Your task to perform on an android device: check out phone information Image 0: 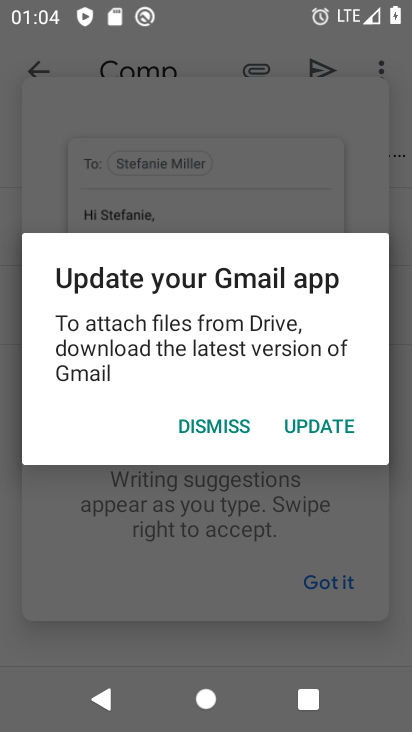
Step 0: press home button
Your task to perform on an android device: check out phone information Image 1: 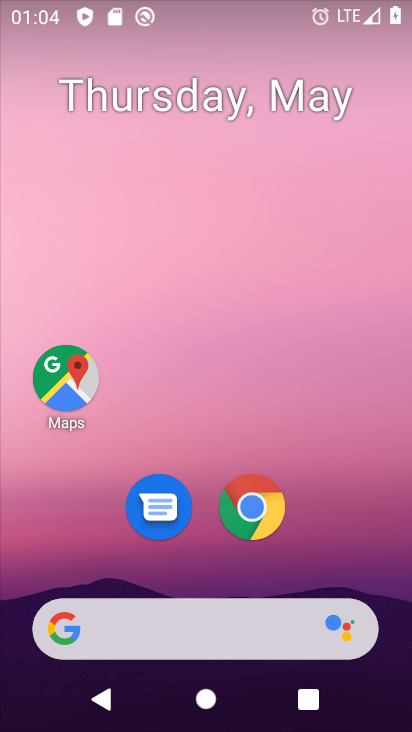
Step 1: drag from (205, 568) to (237, 199)
Your task to perform on an android device: check out phone information Image 2: 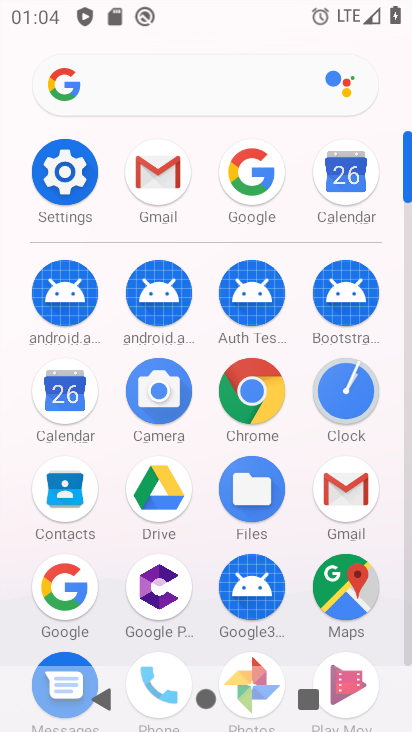
Step 2: click (44, 176)
Your task to perform on an android device: check out phone information Image 3: 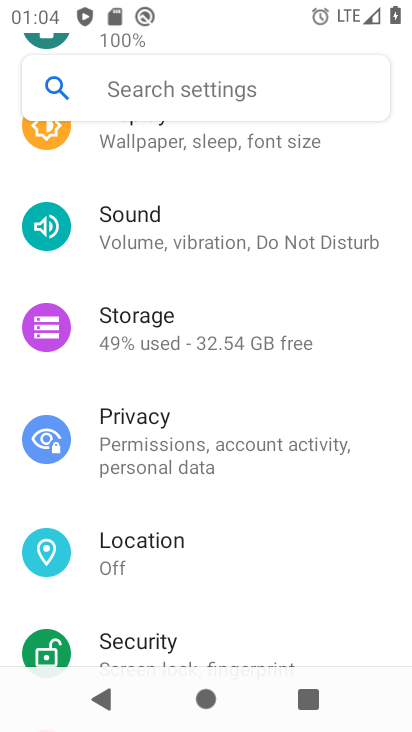
Step 3: drag from (189, 607) to (255, 303)
Your task to perform on an android device: check out phone information Image 4: 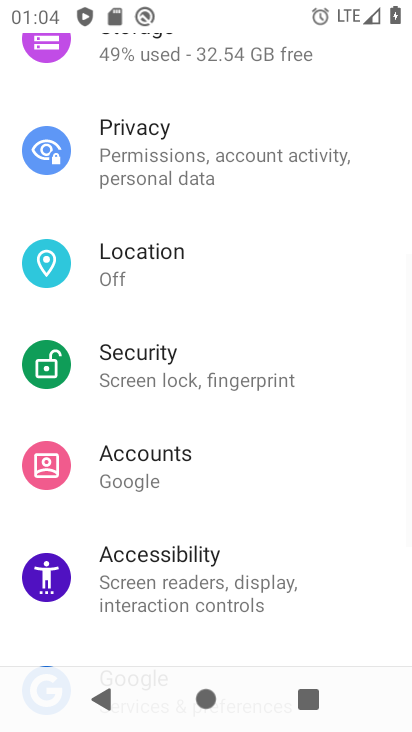
Step 4: drag from (217, 586) to (243, 303)
Your task to perform on an android device: check out phone information Image 5: 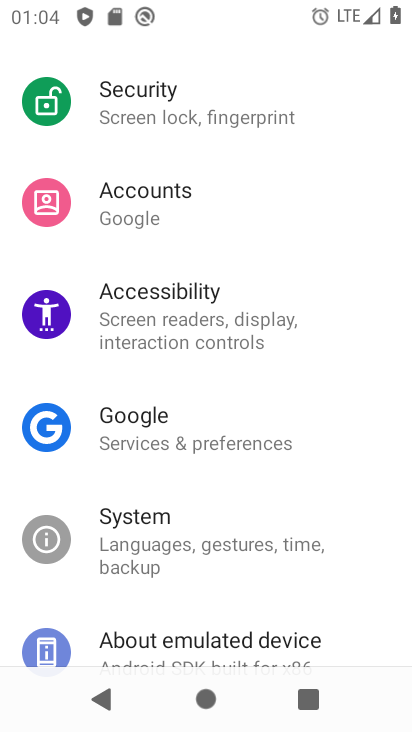
Step 5: drag from (202, 591) to (264, 309)
Your task to perform on an android device: check out phone information Image 6: 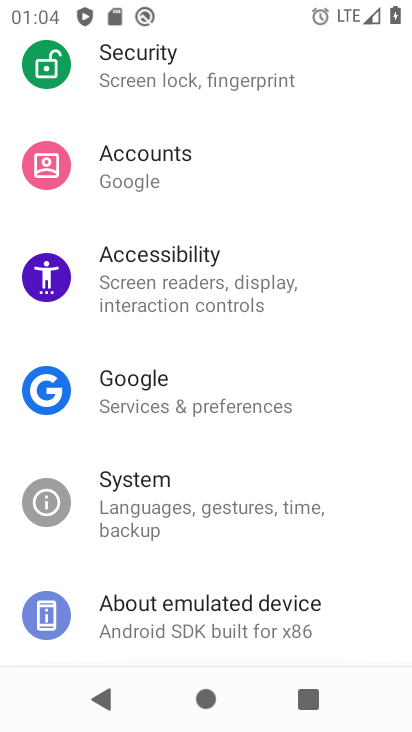
Step 6: drag from (226, 556) to (242, 313)
Your task to perform on an android device: check out phone information Image 7: 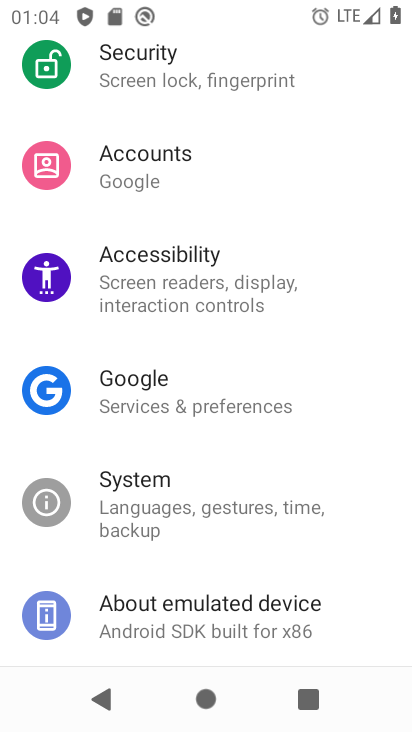
Step 7: click (203, 592)
Your task to perform on an android device: check out phone information Image 8: 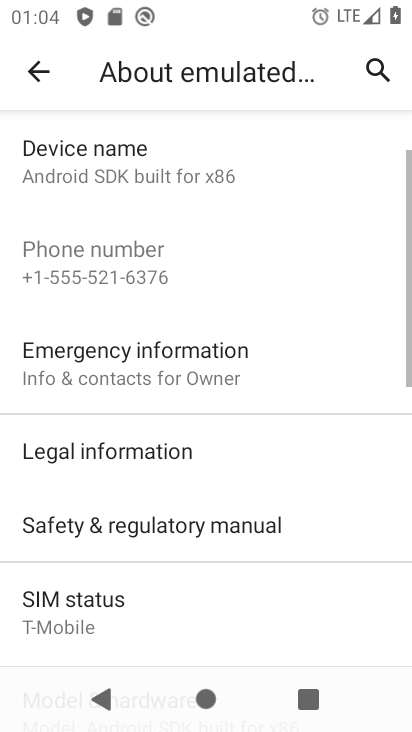
Step 8: task complete